Your task to perform on an android device: turn off notifications in google photos Image 0: 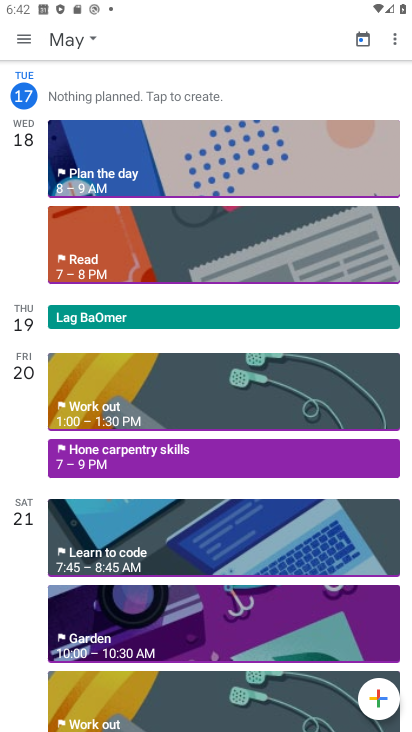
Step 0: press home button
Your task to perform on an android device: turn off notifications in google photos Image 1: 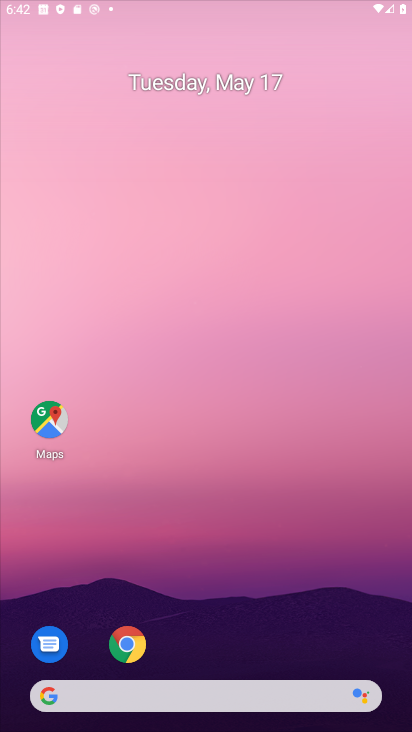
Step 1: drag from (372, 627) to (200, 5)
Your task to perform on an android device: turn off notifications in google photos Image 2: 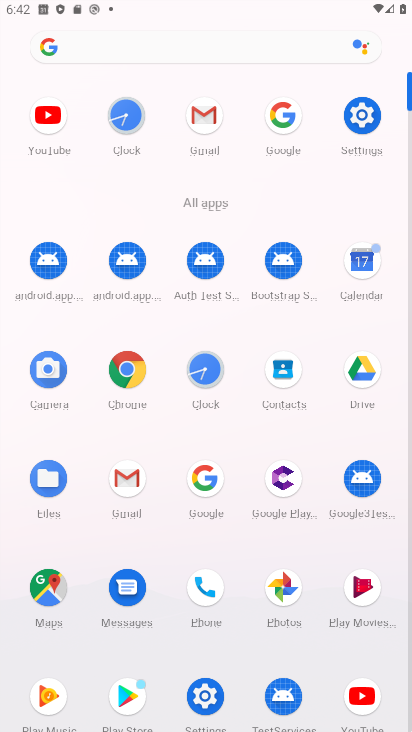
Step 2: click (277, 595)
Your task to perform on an android device: turn off notifications in google photos Image 3: 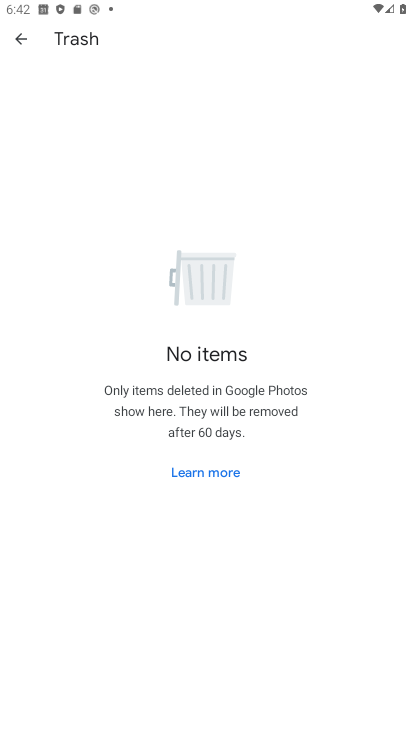
Step 3: press back button
Your task to perform on an android device: turn off notifications in google photos Image 4: 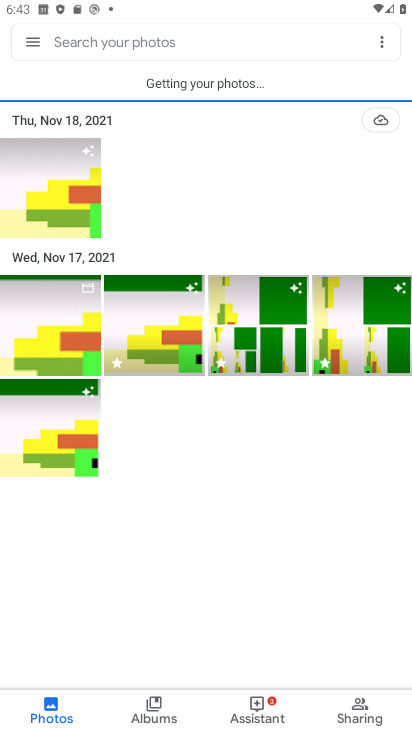
Step 4: click (28, 46)
Your task to perform on an android device: turn off notifications in google photos Image 5: 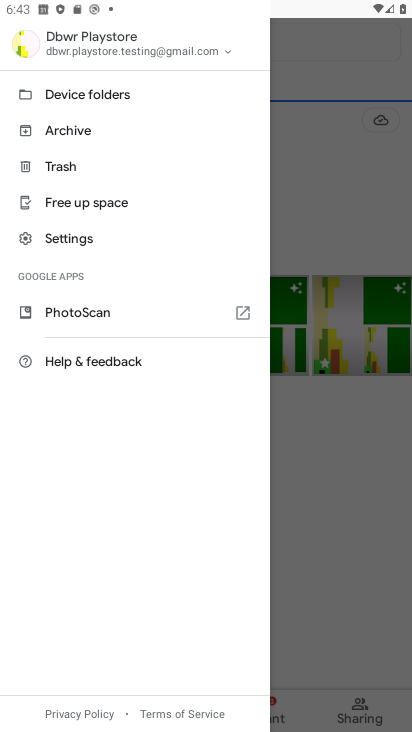
Step 5: click (83, 243)
Your task to perform on an android device: turn off notifications in google photos Image 6: 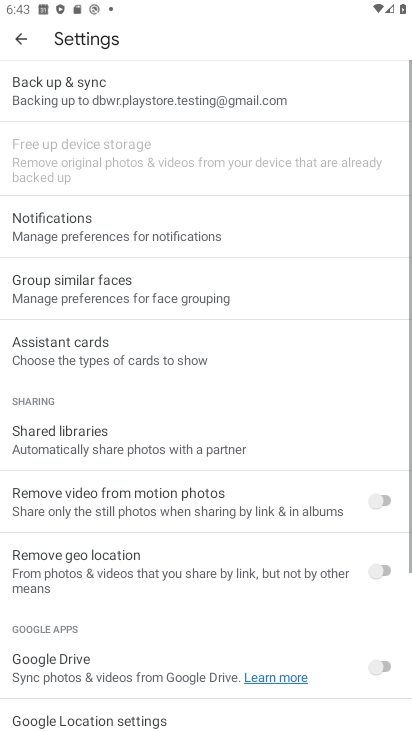
Step 6: click (82, 242)
Your task to perform on an android device: turn off notifications in google photos Image 7: 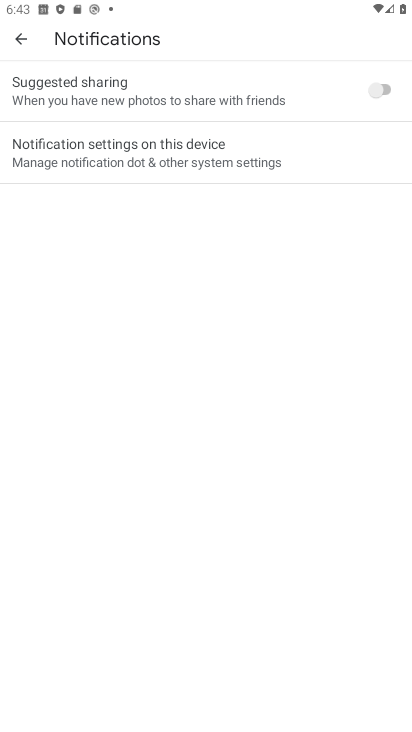
Step 7: task complete